Your task to perform on an android device: What's the weather? Image 0: 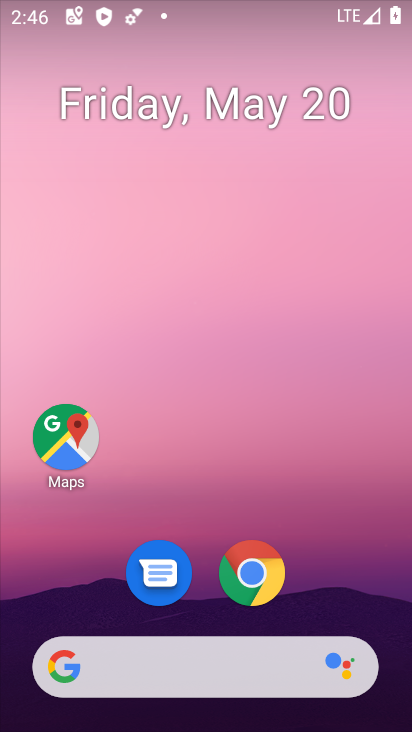
Step 0: click (149, 686)
Your task to perform on an android device: What's the weather? Image 1: 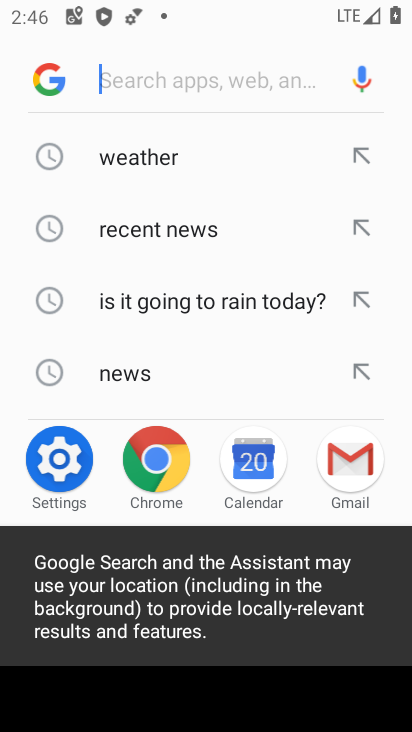
Step 1: click (167, 151)
Your task to perform on an android device: What's the weather? Image 2: 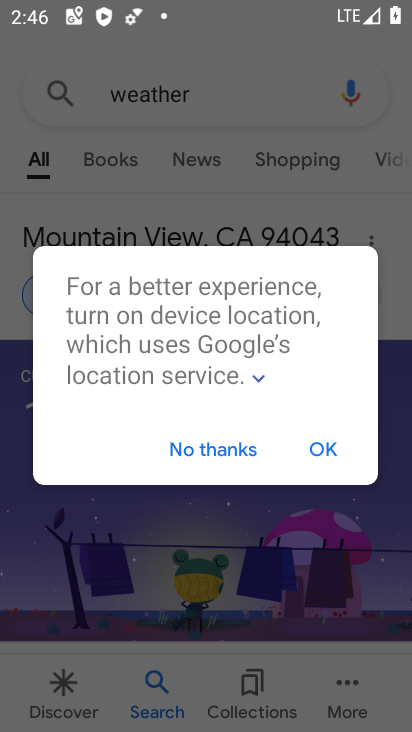
Step 2: click (205, 457)
Your task to perform on an android device: What's the weather? Image 3: 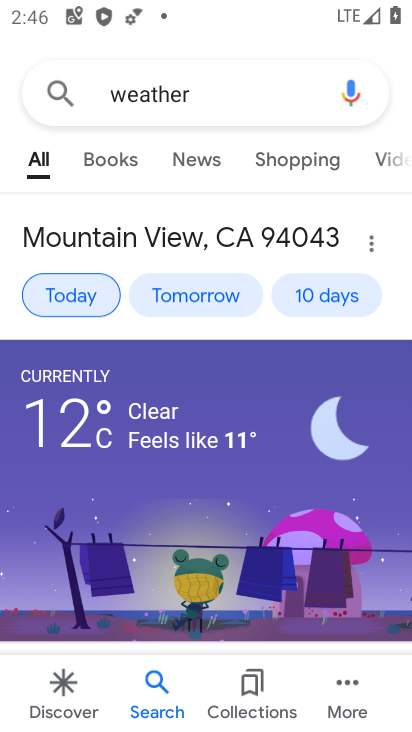
Step 3: task complete